Your task to perform on an android device: What's the weather going to be this weekend? Image 0: 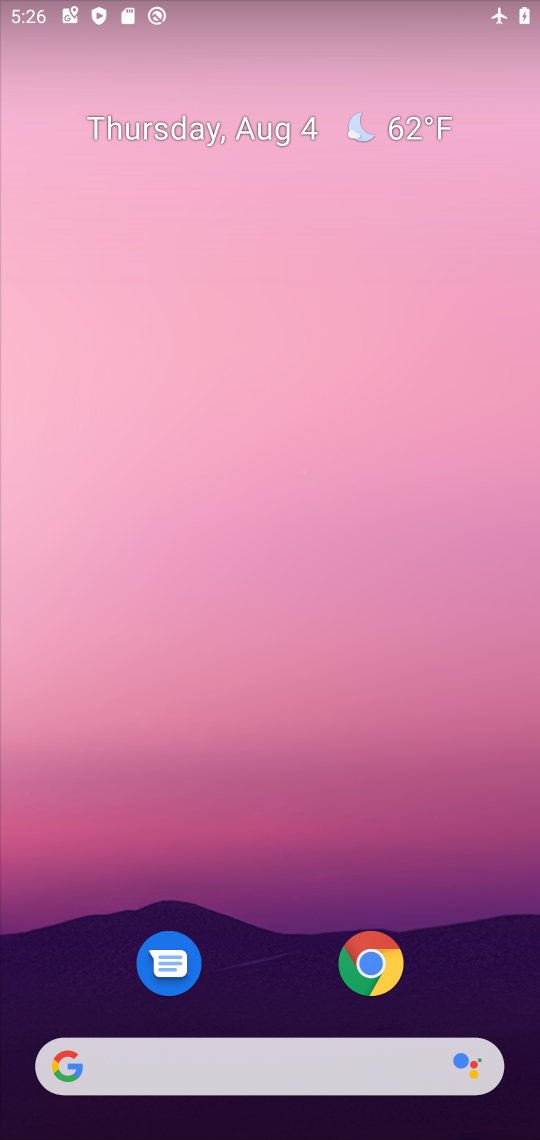
Step 0: click (249, 1057)
Your task to perform on an android device: What's the weather going to be this weekend? Image 1: 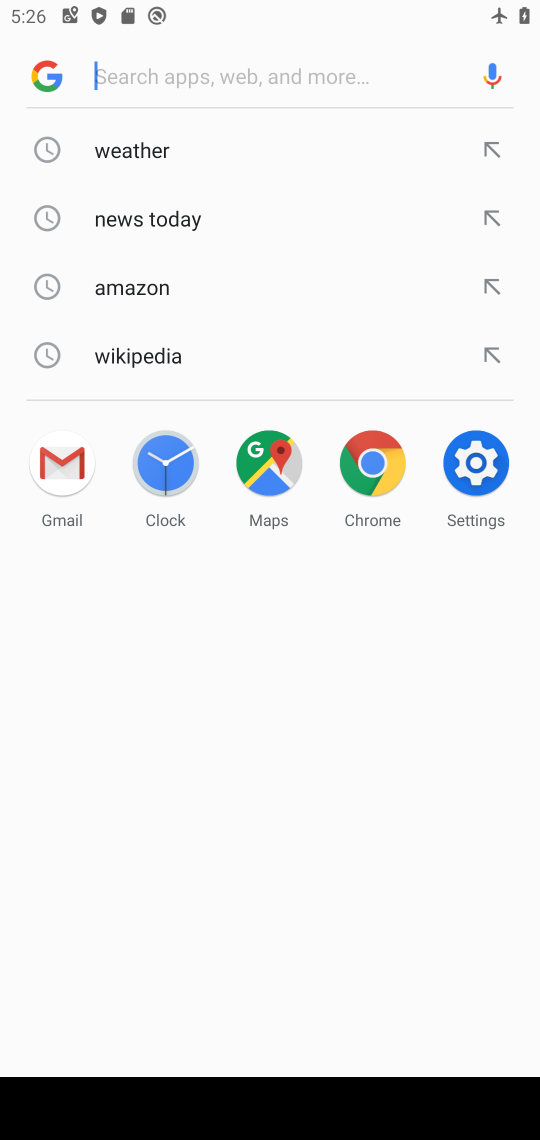
Step 1: click (138, 143)
Your task to perform on an android device: What's the weather going to be this weekend? Image 2: 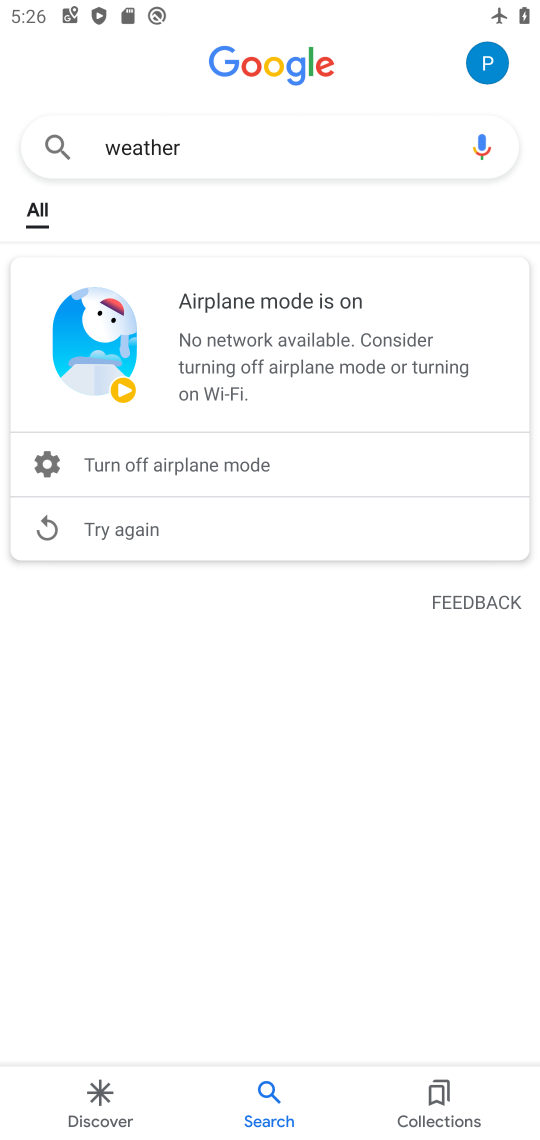
Step 2: task complete